Your task to perform on an android device: Go to accessibility settings Image 0: 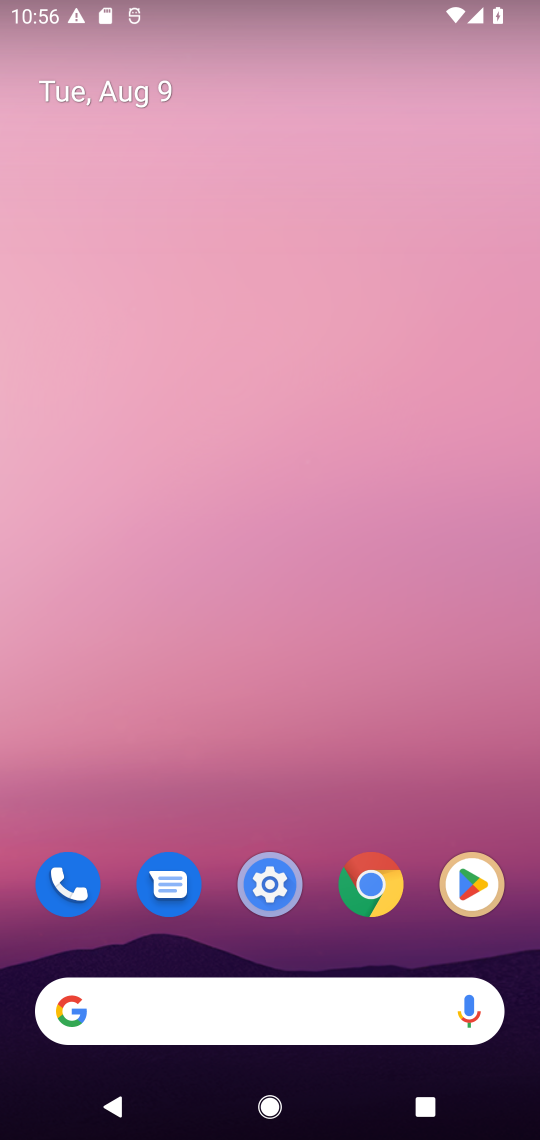
Step 0: drag from (414, 1008) to (250, 97)
Your task to perform on an android device: Go to accessibility settings Image 1: 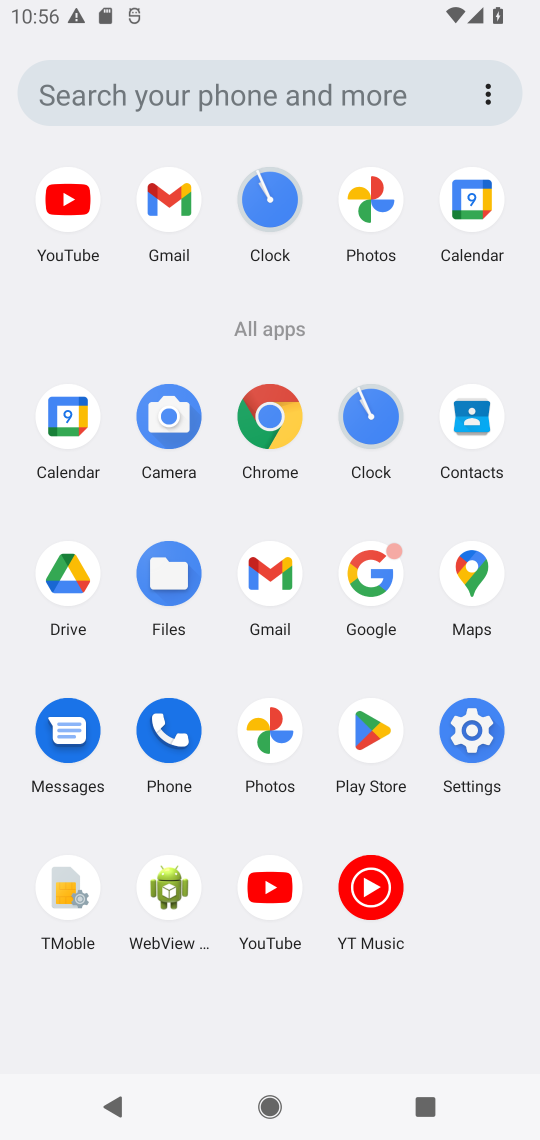
Step 1: click (477, 742)
Your task to perform on an android device: Go to accessibility settings Image 2: 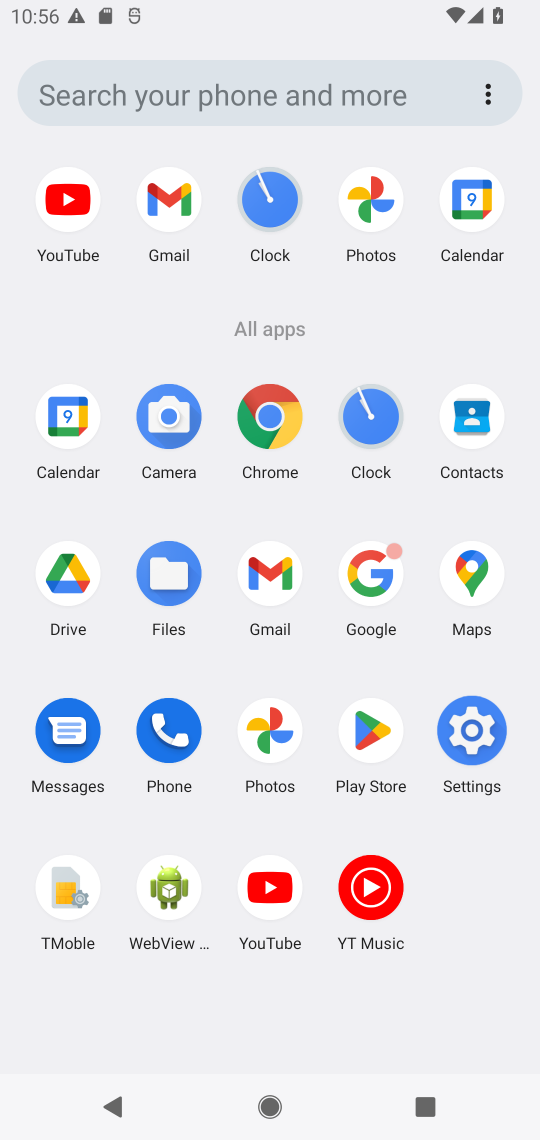
Step 2: click (474, 743)
Your task to perform on an android device: Go to accessibility settings Image 3: 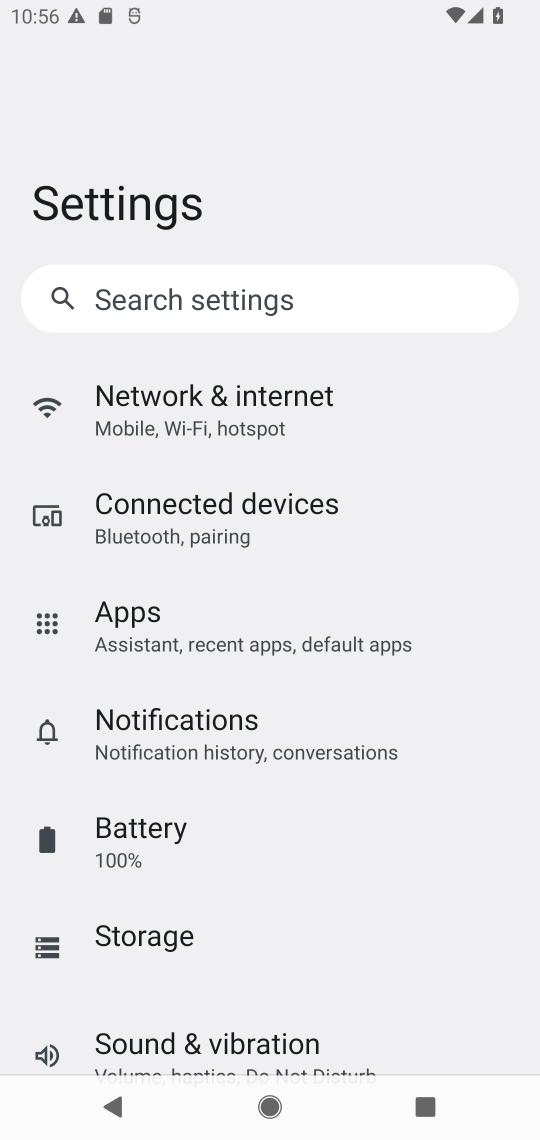
Step 3: drag from (343, 925) to (290, 523)
Your task to perform on an android device: Go to accessibility settings Image 4: 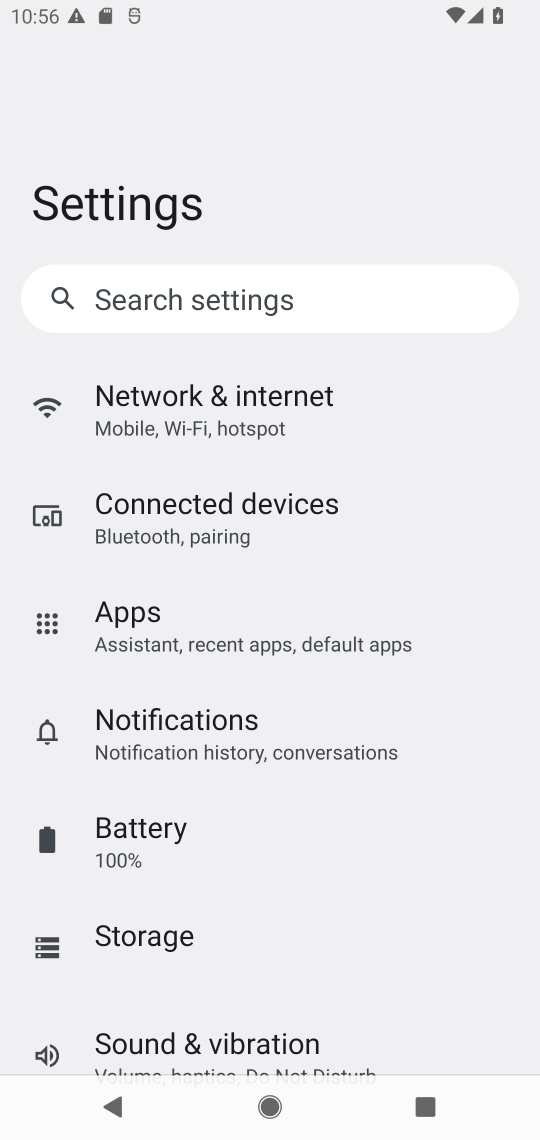
Step 4: drag from (161, 925) to (125, 218)
Your task to perform on an android device: Go to accessibility settings Image 5: 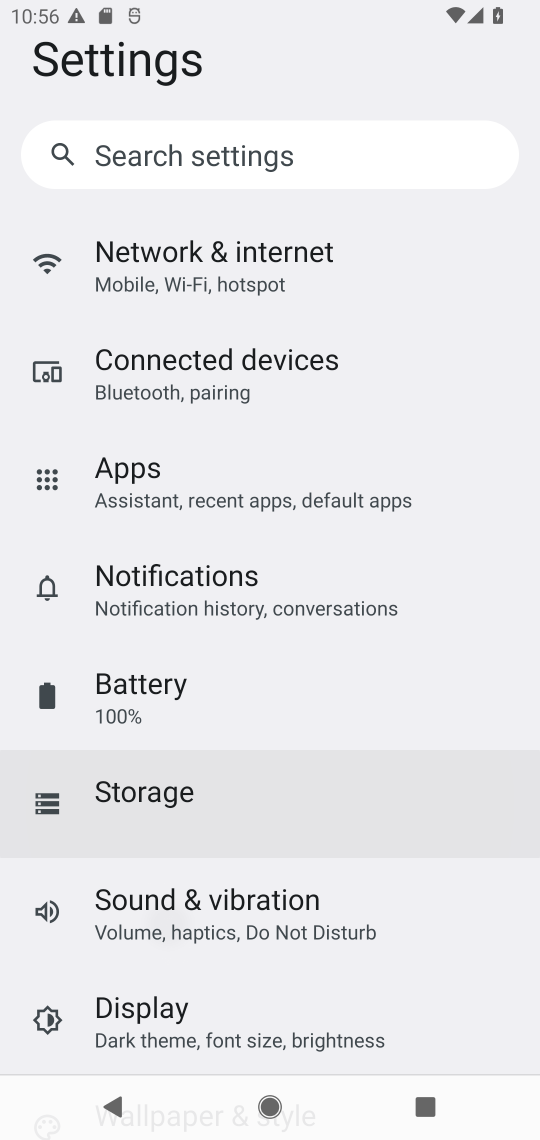
Step 5: drag from (209, 764) to (221, 185)
Your task to perform on an android device: Go to accessibility settings Image 6: 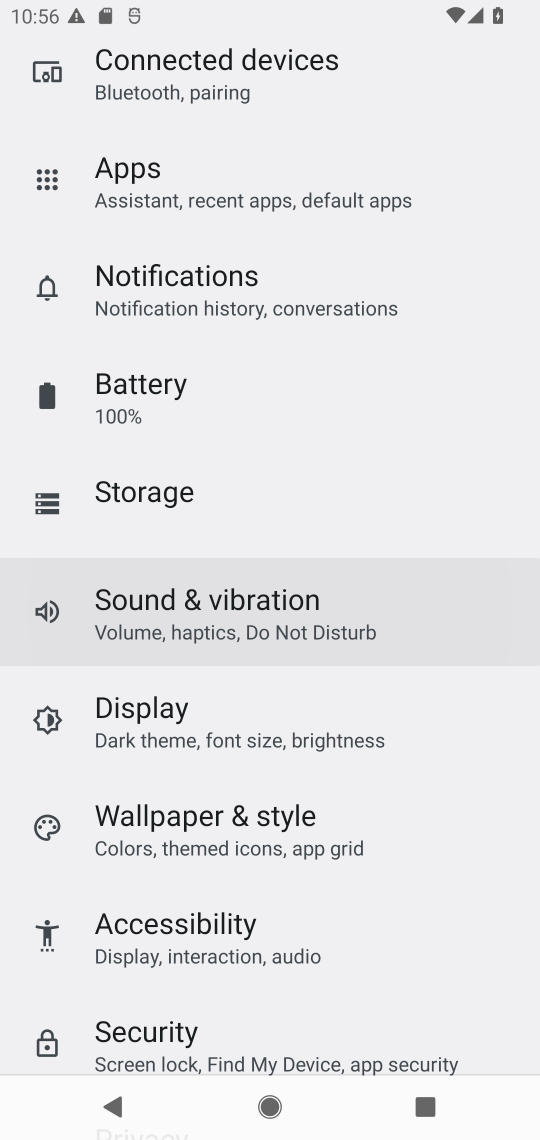
Step 6: drag from (201, 682) to (165, 323)
Your task to perform on an android device: Go to accessibility settings Image 7: 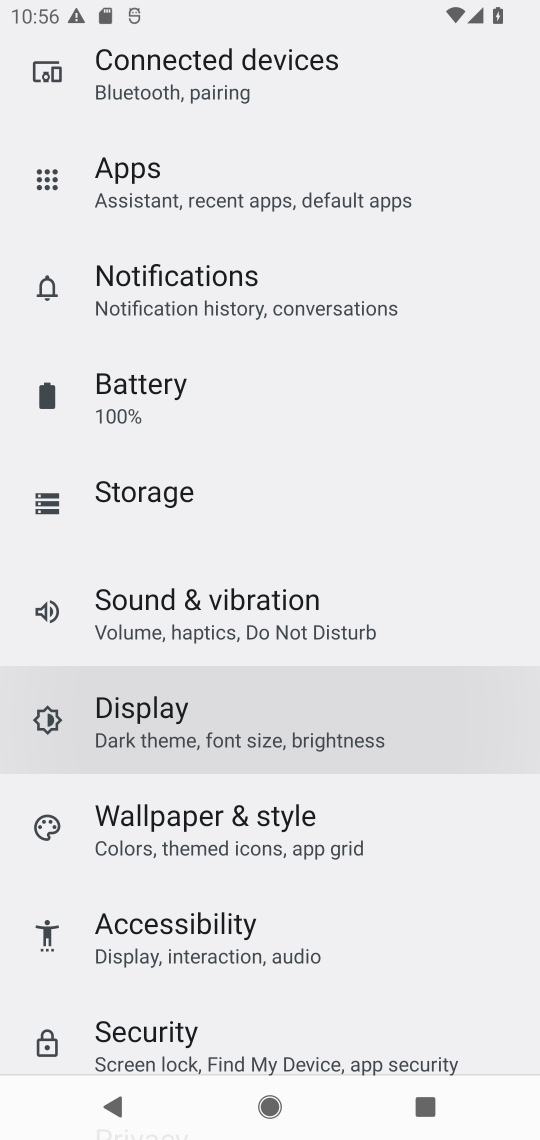
Step 7: drag from (197, 360) to (197, 292)
Your task to perform on an android device: Go to accessibility settings Image 8: 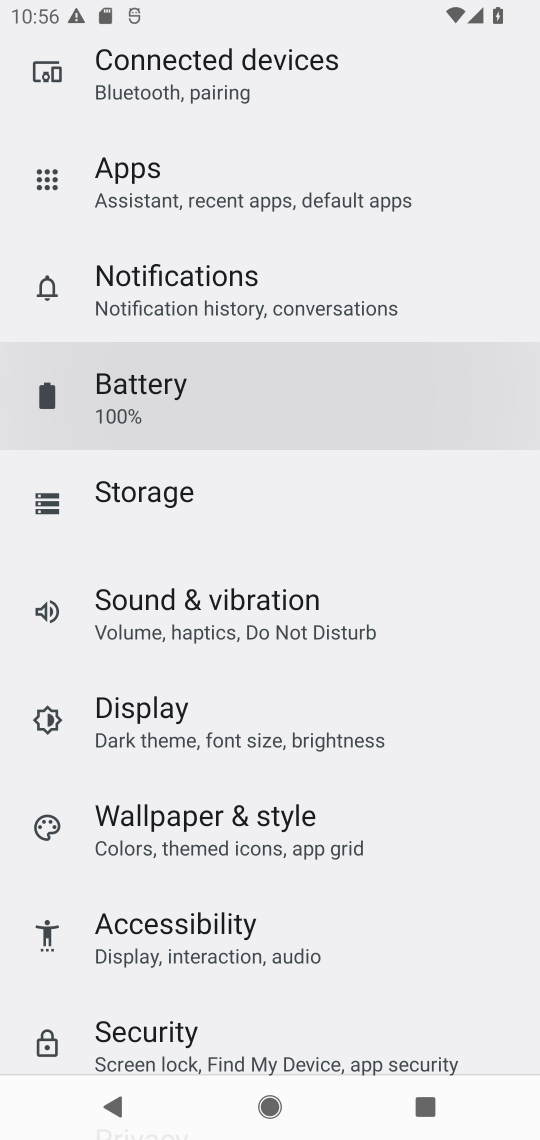
Step 8: click (174, 923)
Your task to perform on an android device: Go to accessibility settings Image 9: 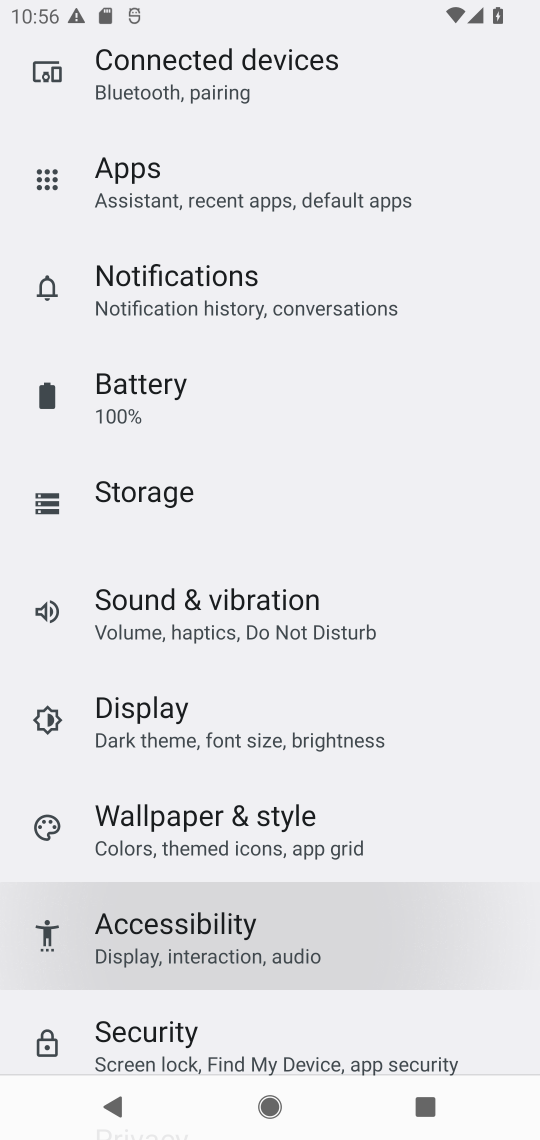
Step 9: click (171, 923)
Your task to perform on an android device: Go to accessibility settings Image 10: 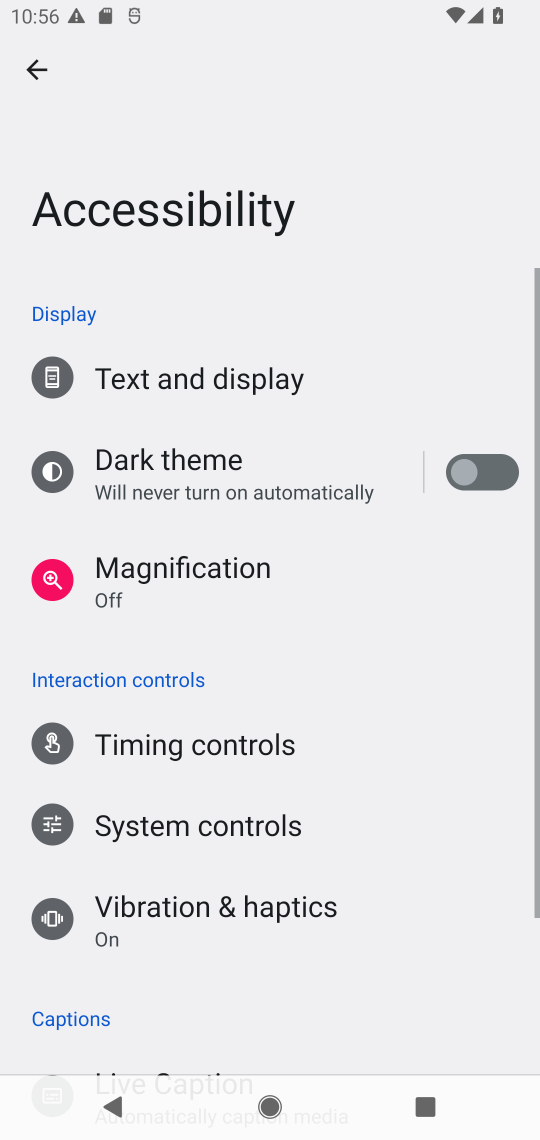
Step 10: task complete